Your task to perform on an android device: Search for logitech g502 on bestbuy, select the first entry, add it to the cart, then select checkout. Image 0: 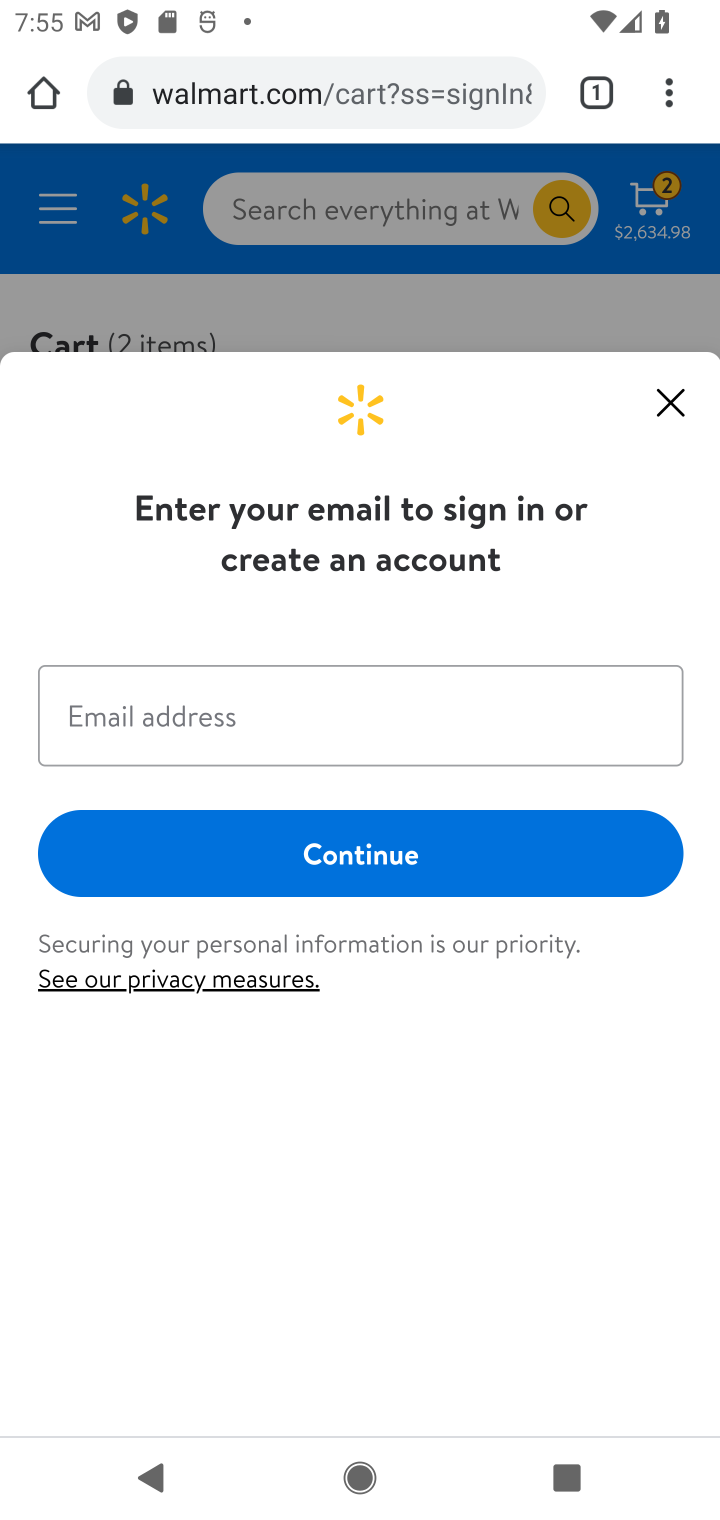
Step 0: click (363, 108)
Your task to perform on an android device: Search for logitech g502 on bestbuy, select the first entry, add it to the cart, then select checkout. Image 1: 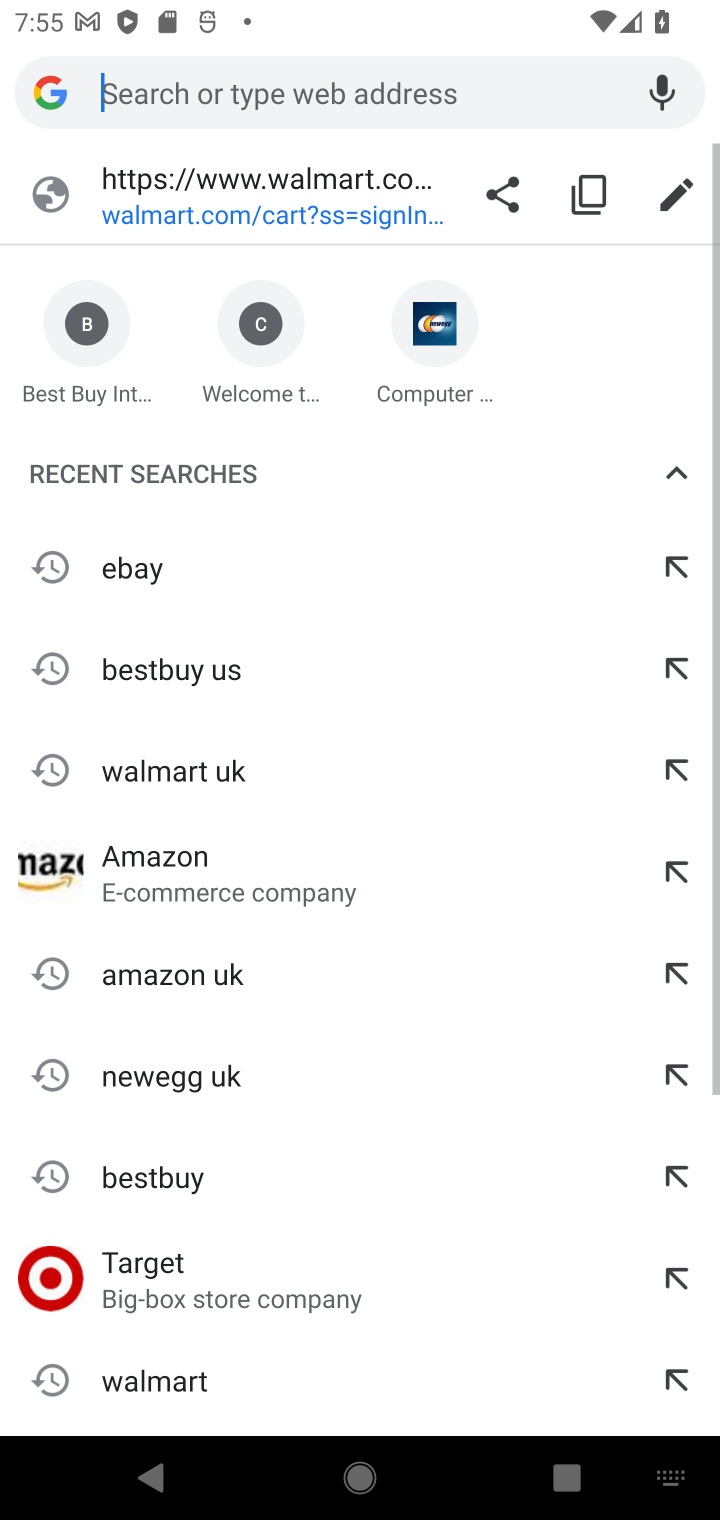
Step 1: click (190, 675)
Your task to perform on an android device: Search for logitech g502 on bestbuy, select the first entry, add it to the cart, then select checkout. Image 2: 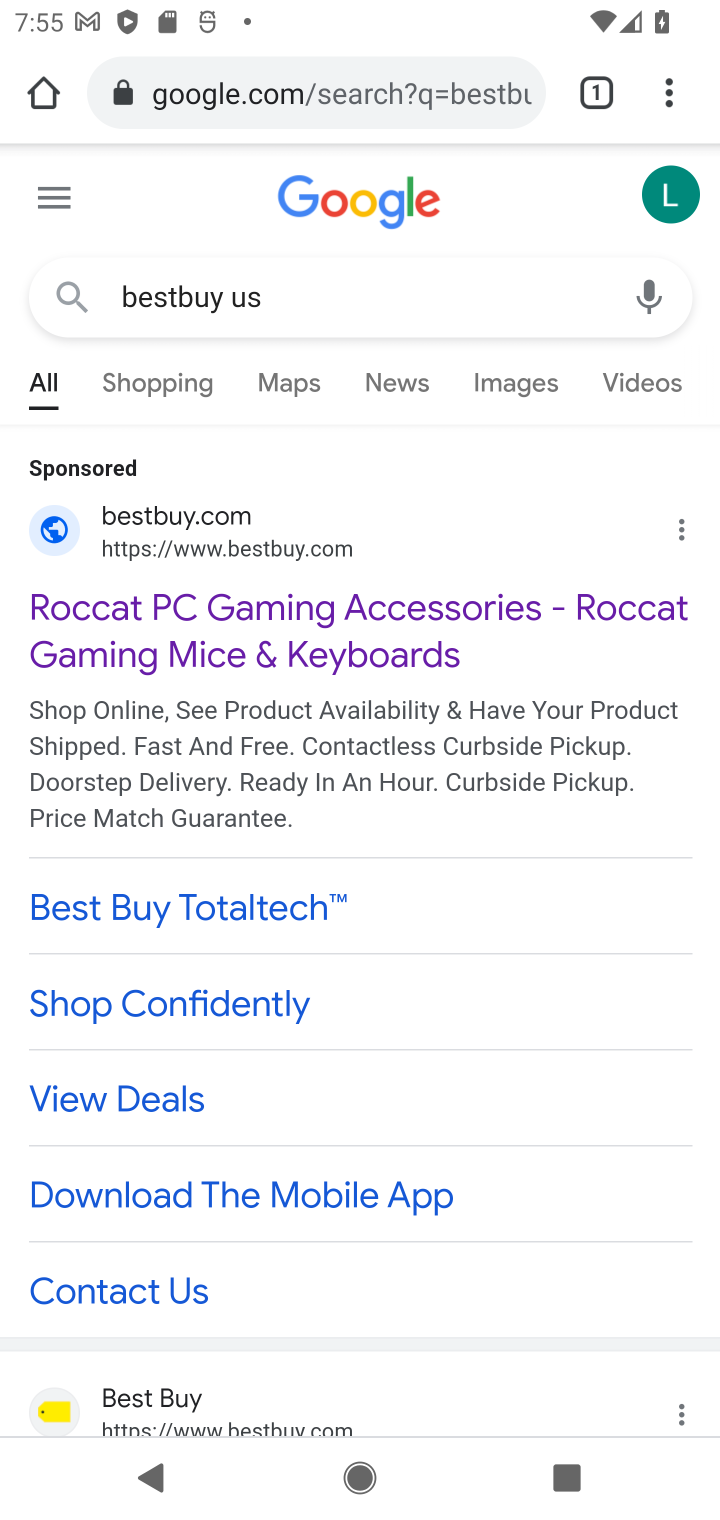
Step 2: drag from (187, 1079) to (252, 611)
Your task to perform on an android device: Search for logitech g502 on bestbuy, select the first entry, add it to the cart, then select checkout. Image 3: 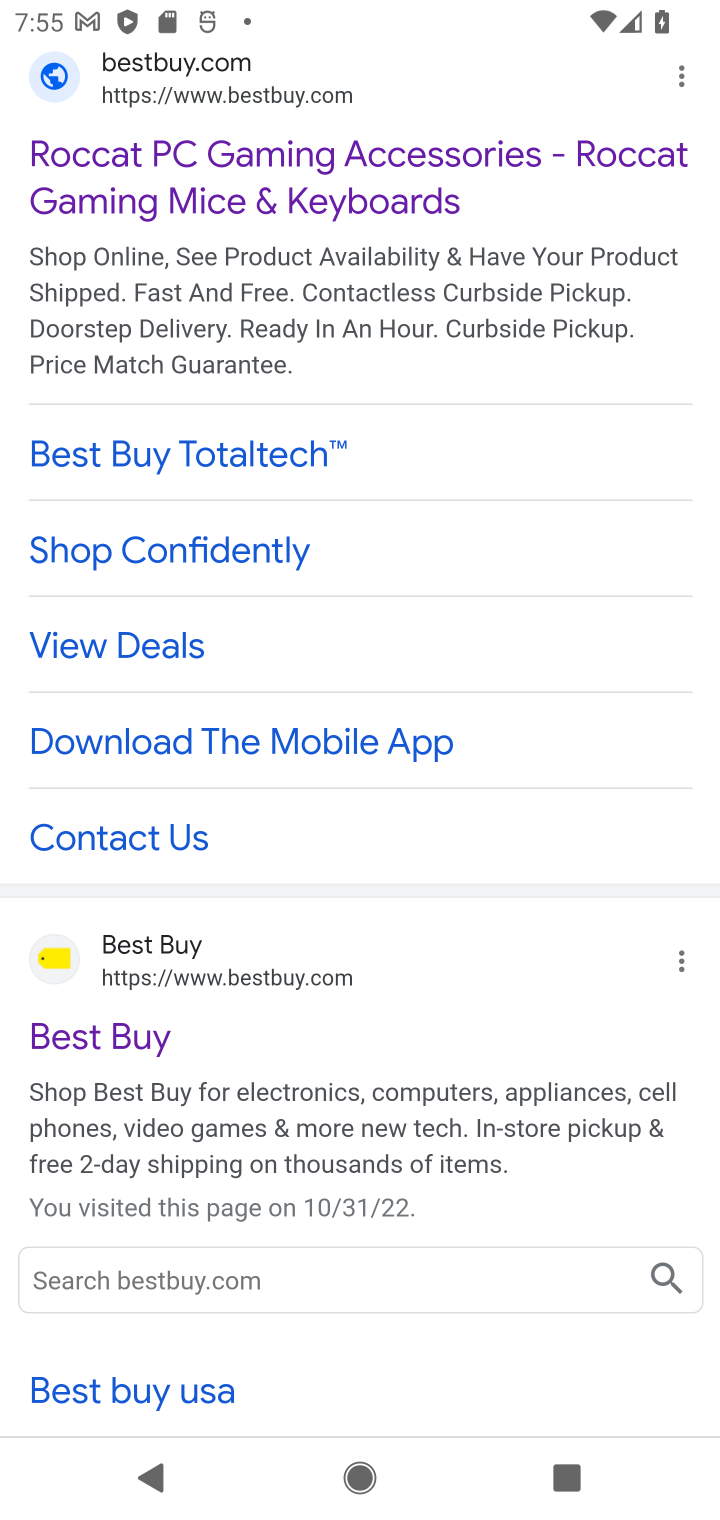
Step 3: click (201, 973)
Your task to perform on an android device: Search for logitech g502 on bestbuy, select the first entry, add it to the cart, then select checkout. Image 4: 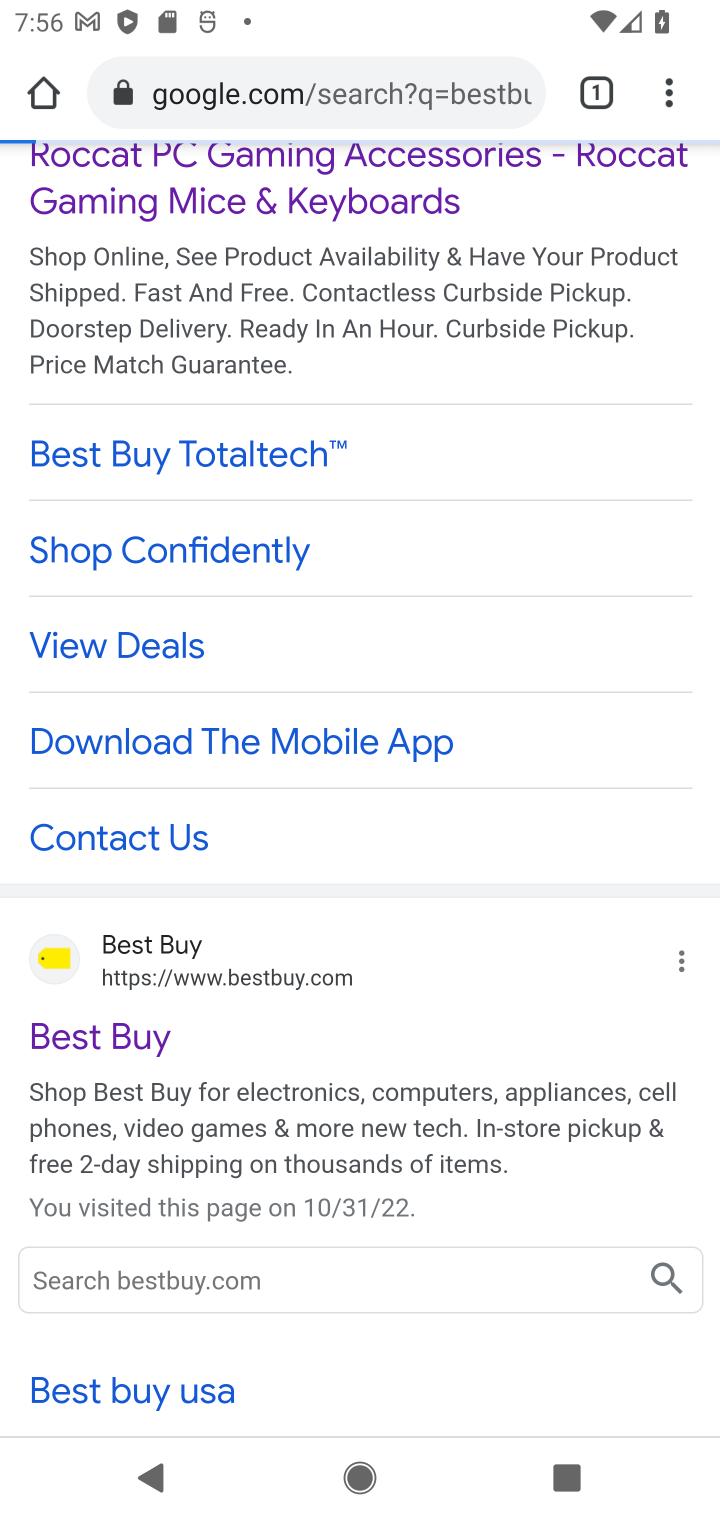
Step 4: click (156, 968)
Your task to perform on an android device: Search for logitech g502 on bestbuy, select the first entry, add it to the cart, then select checkout. Image 5: 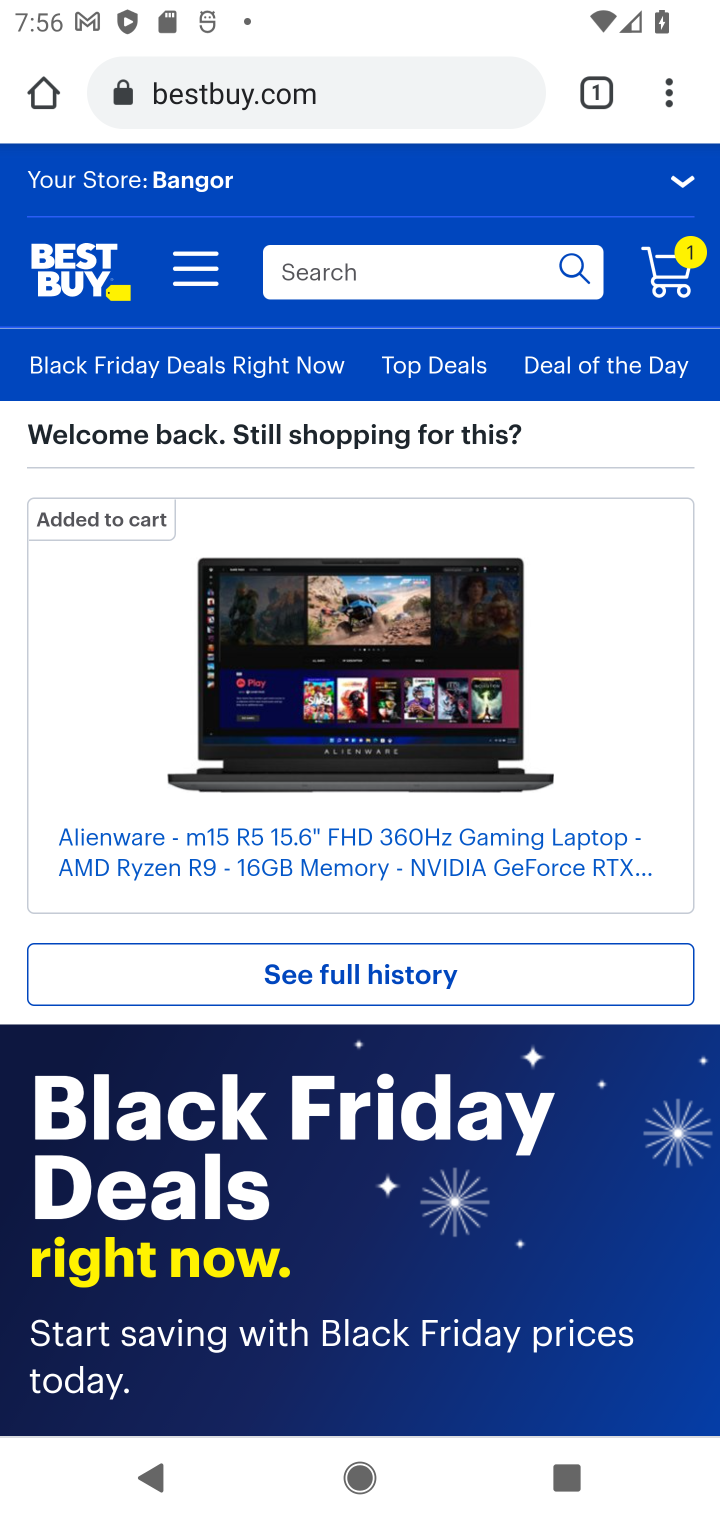
Step 5: click (407, 260)
Your task to perform on an android device: Search for logitech g502 on bestbuy, select the first entry, add it to the cart, then select checkout. Image 6: 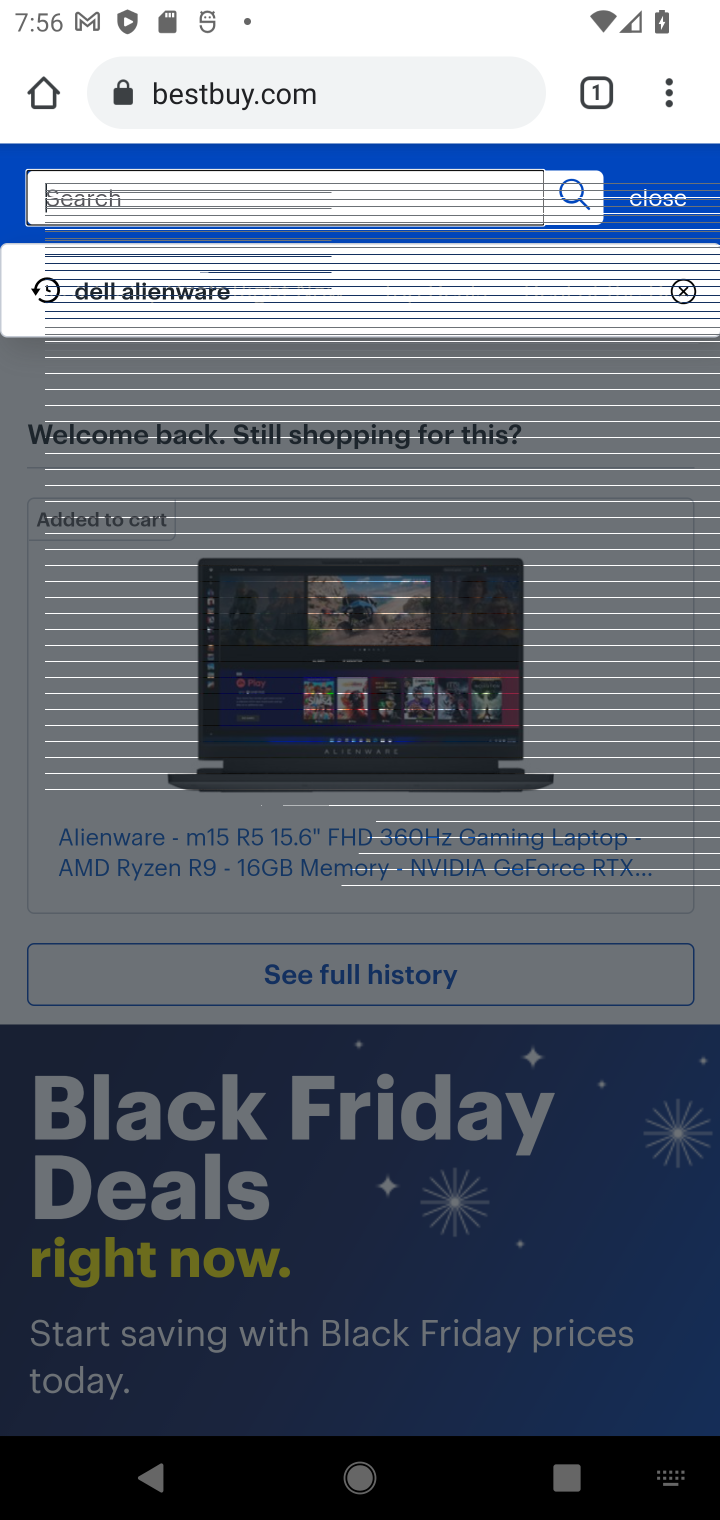
Step 6: type "logitech g502"
Your task to perform on an android device: Search for logitech g502 on bestbuy, select the first entry, add it to the cart, then select checkout. Image 7: 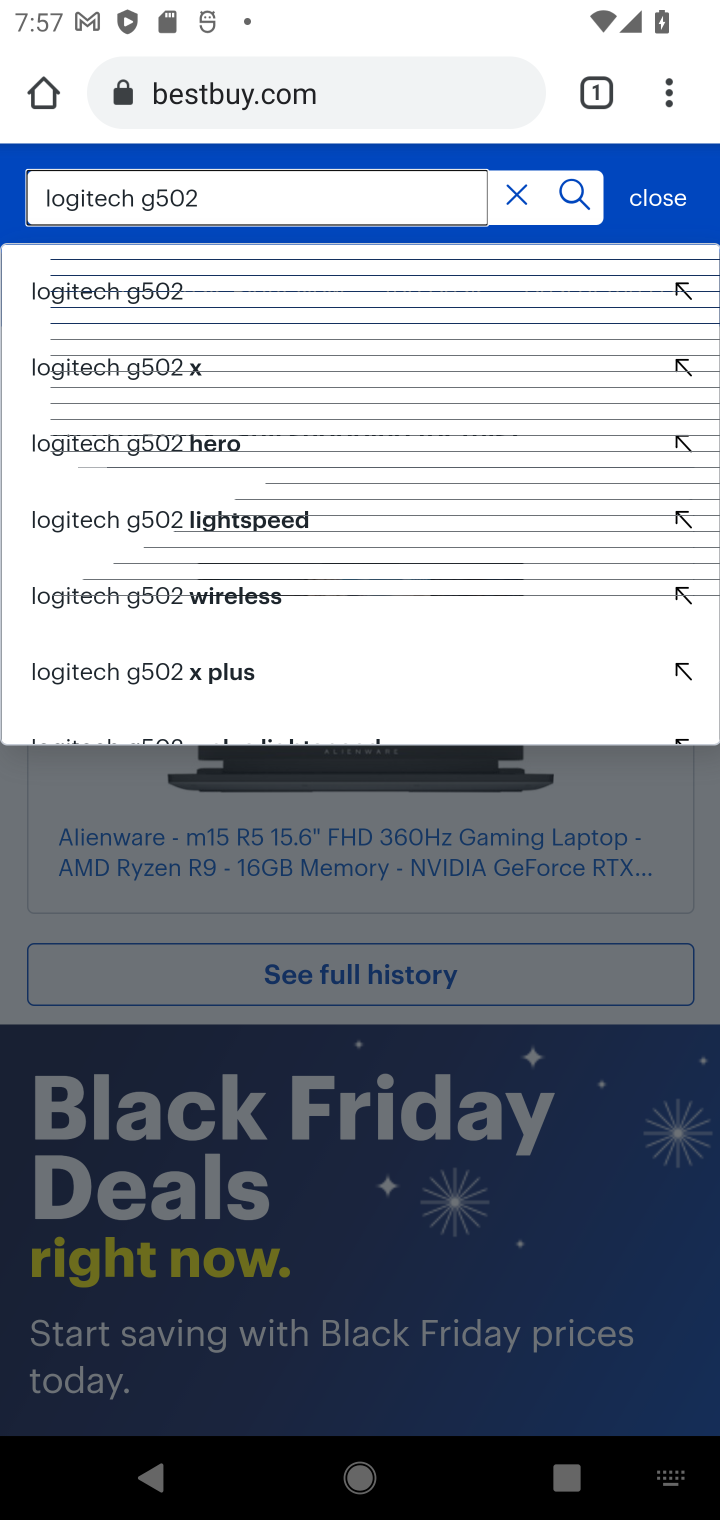
Step 7: click (142, 303)
Your task to perform on an android device: Search for logitech g502 on bestbuy, select the first entry, add it to the cart, then select checkout. Image 8: 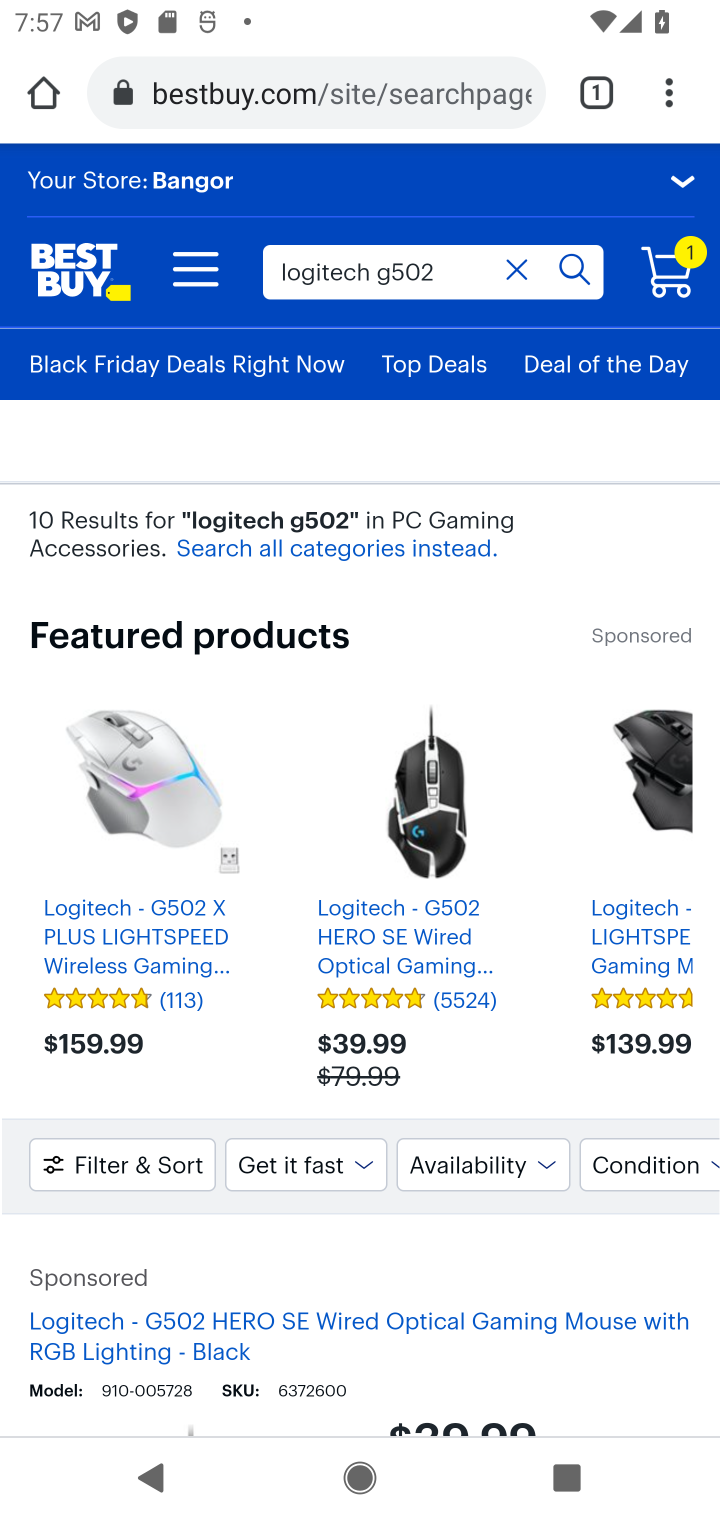
Step 8: drag from (363, 1011) to (405, 563)
Your task to perform on an android device: Search for logitech g502 on bestbuy, select the first entry, add it to the cart, then select checkout. Image 9: 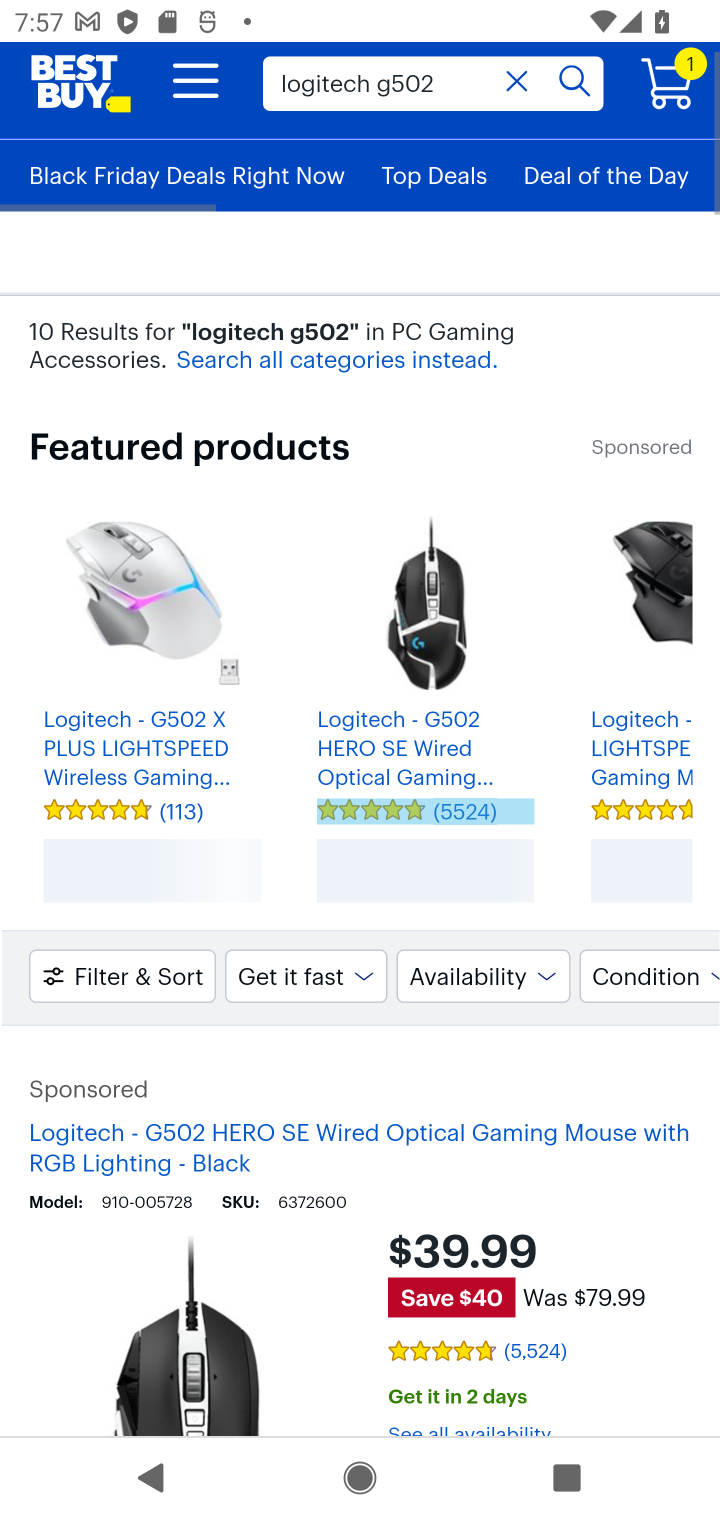
Step 9: drag from (406, 1377) to (423, 746)
Your task to perform on an android device: Search for logitech g502 on bestbuy, select the first entry, add it to the cart, then select checkout. Image 10: 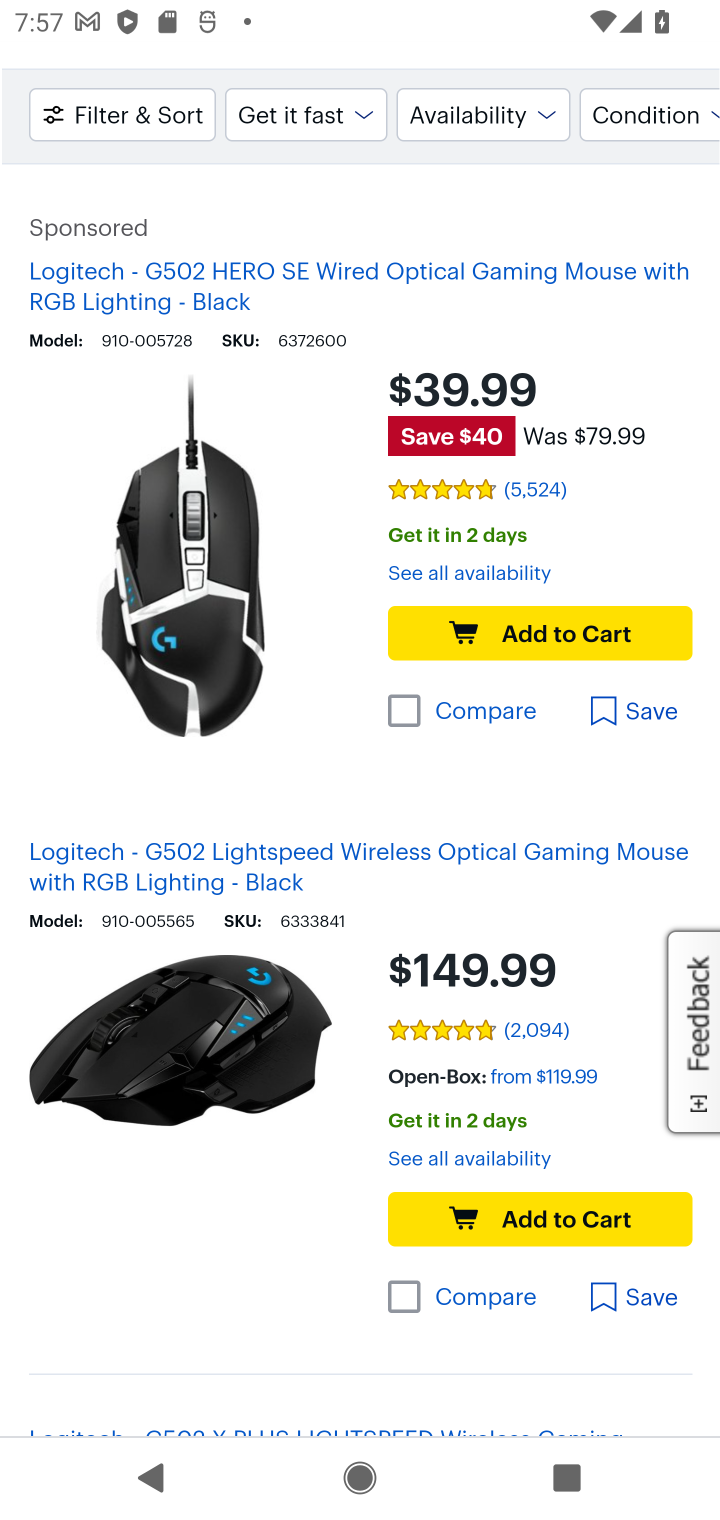
Step 10: click (500, 636)
Your task to perform on an android device: Search for logitech g502 on bestbuy, select the first entry, add it to the cart, then select checkout. Image 11: 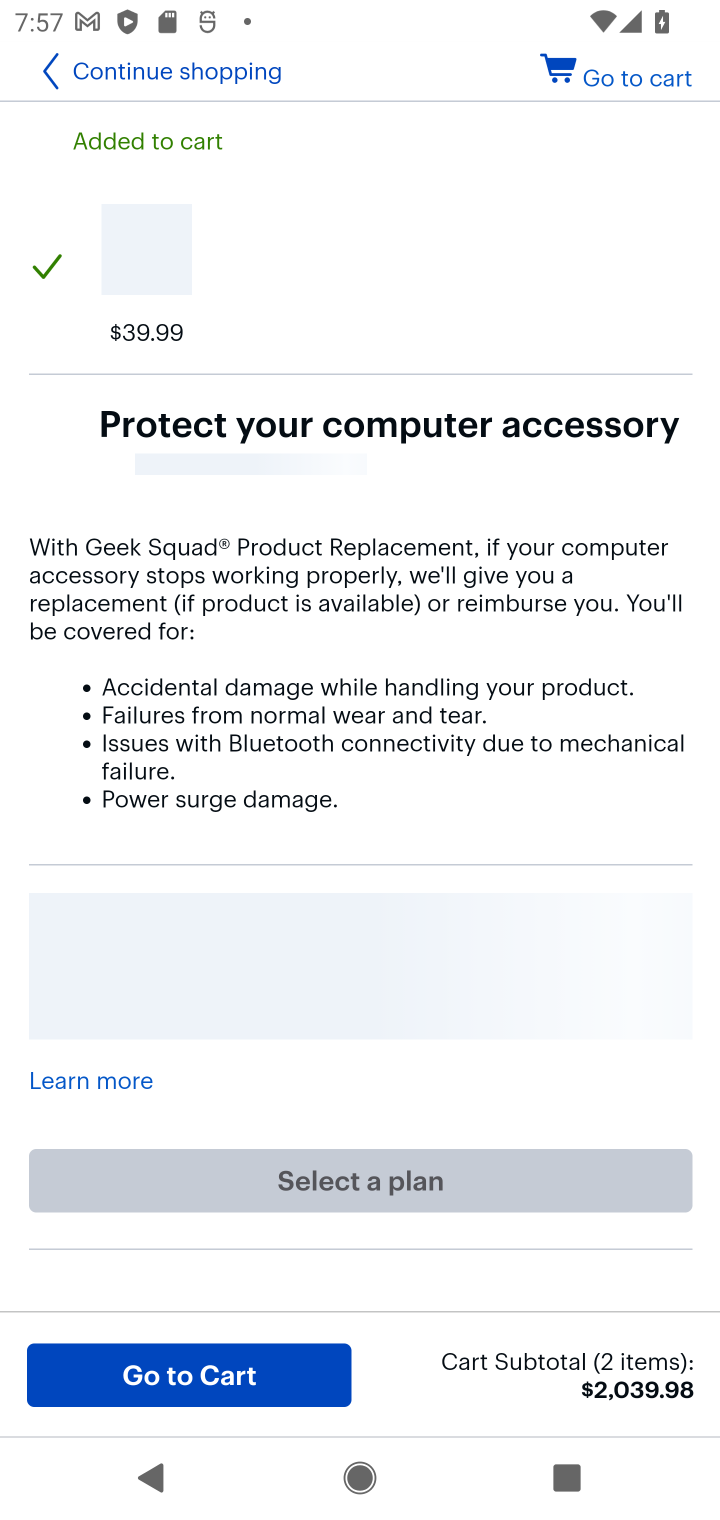
Step 11: click (605, 86)
Your task to perform on an android device: Search for logitech g502 on bestbuy, select the first entry, add it to the cart, then select checkout. Image 12: 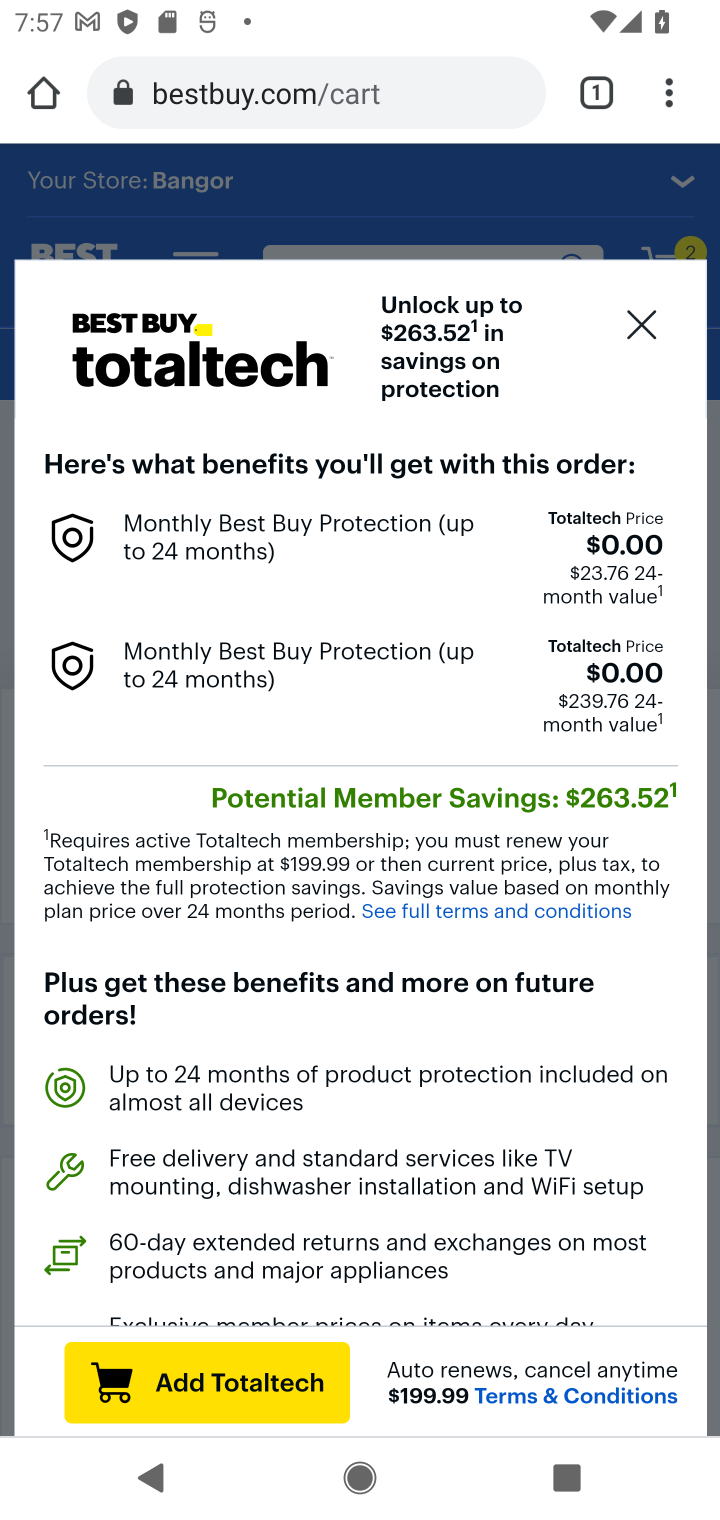
Step 12: click (633, 328)
Your task to perform on an android device: Search for logitech g502 on bestbuy, select the first entry, add it to the cart, then select checkout. Image 13: 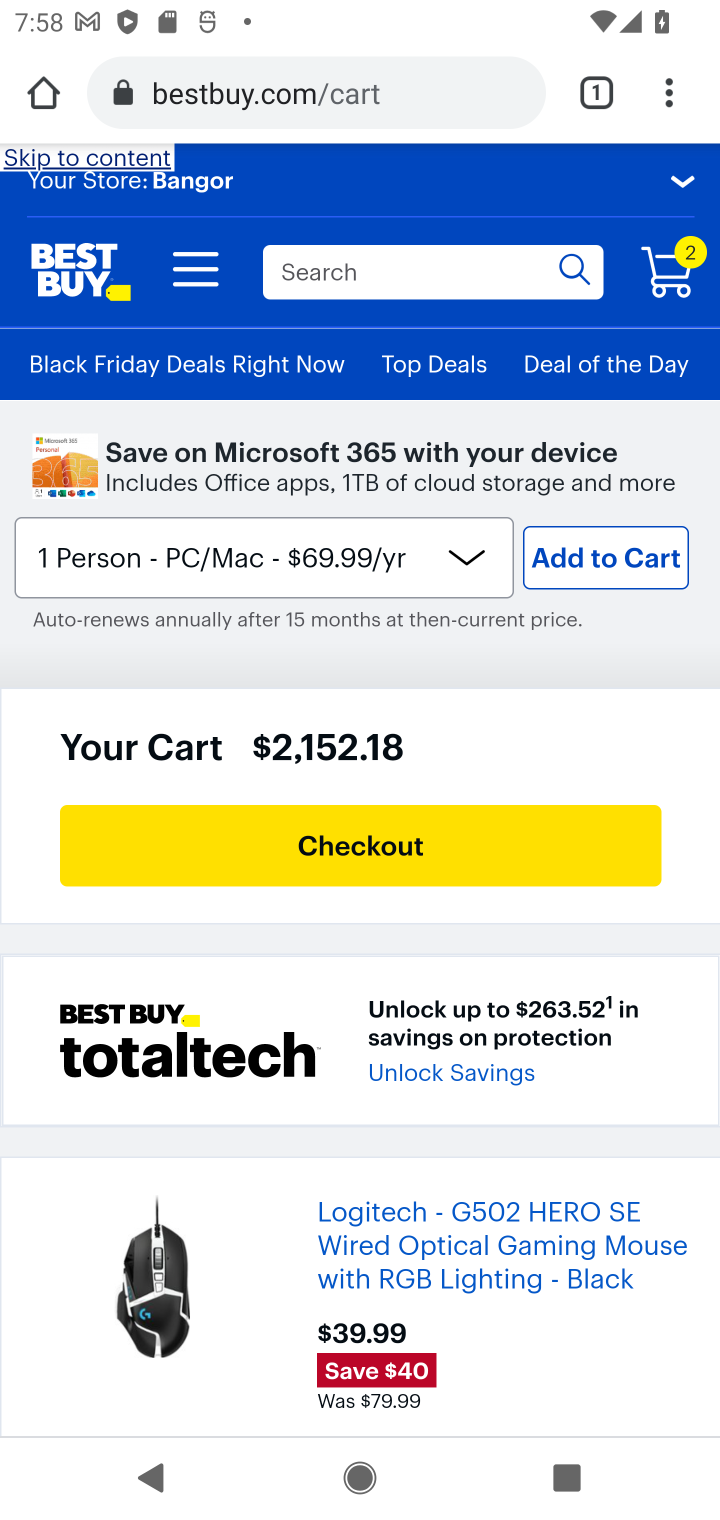
Step 13: click (376, 837)
Your task to perform on an android device: Search for logitech g502 on bestbuy, select the first entry, add it to the cart, then select checkout. Image 14: 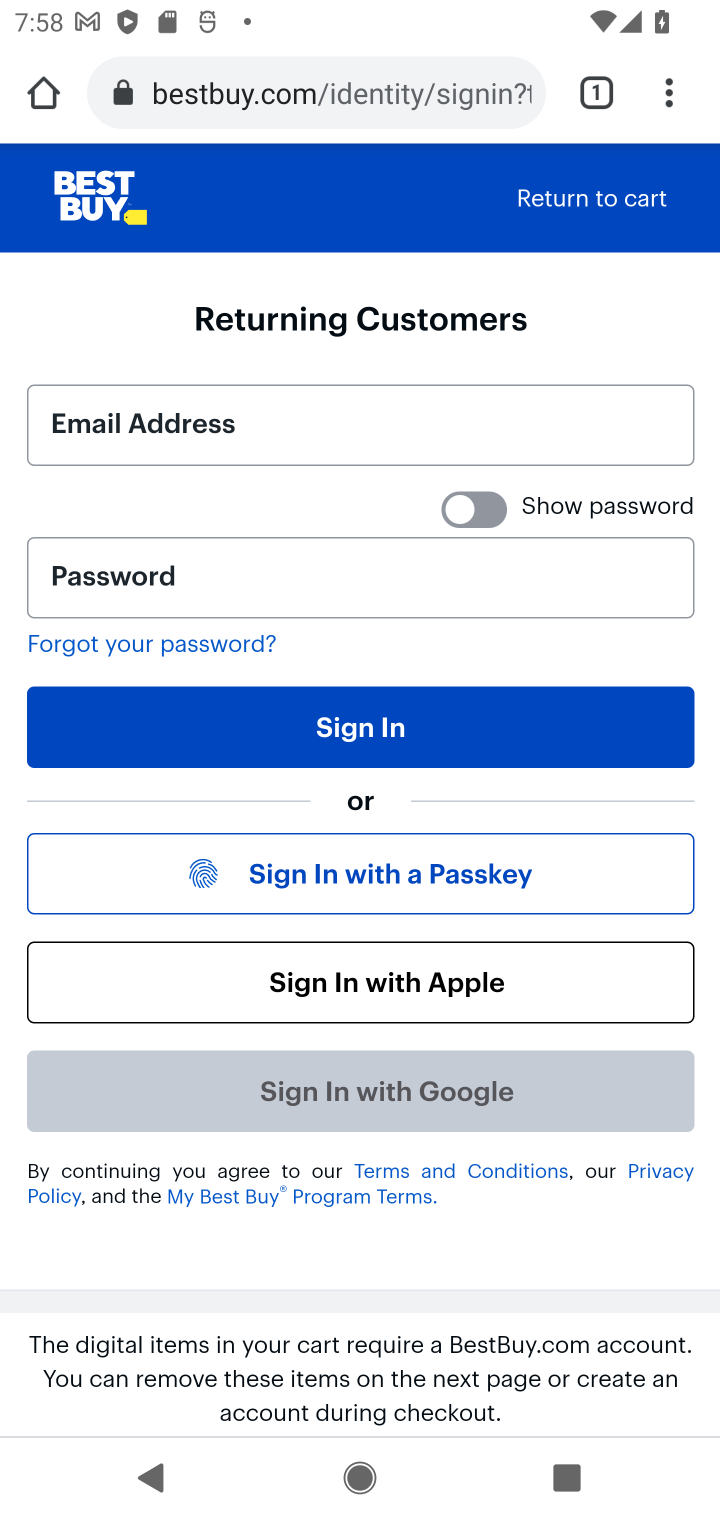
Step 14: task complete